Your task to perform on an android device: Go to display settings Image 0: 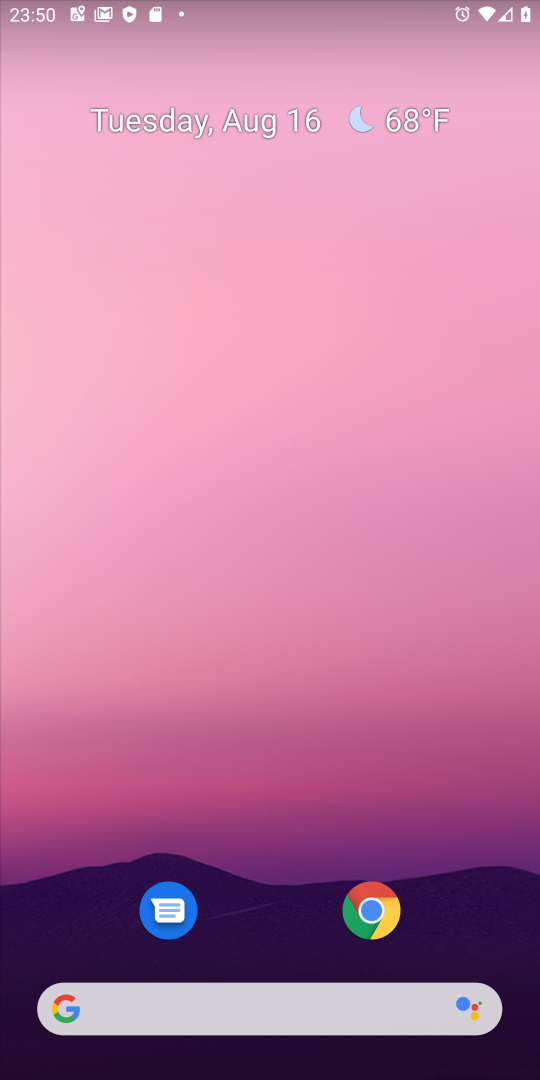
Step 0: drag from (221, 879) to (237, 105)
Your task to perform on an android device: Go to display settings Image 1: 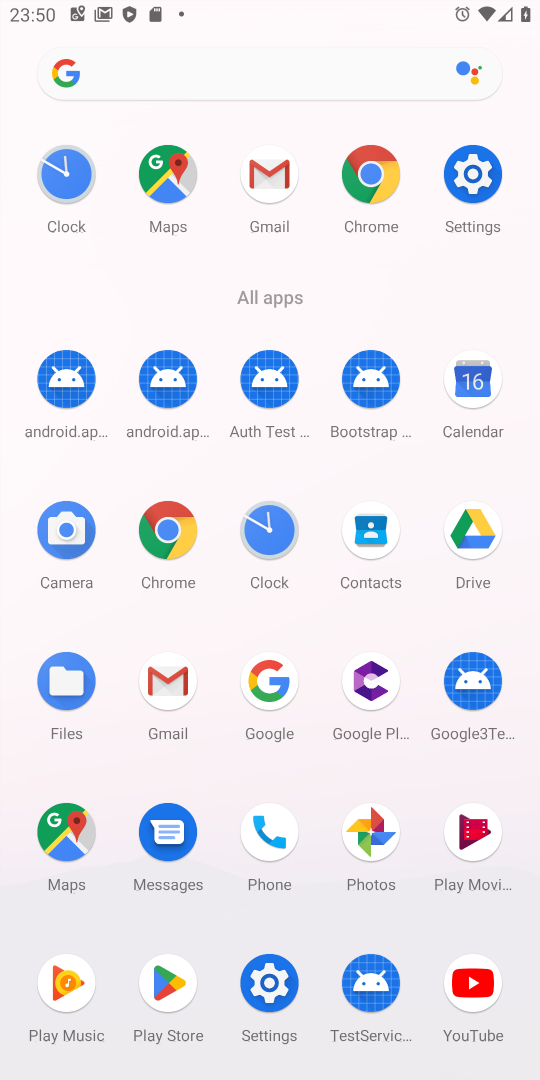
Step 1: click (271, 989)
Your task to perform on an android device: Go to display settings Image 2: 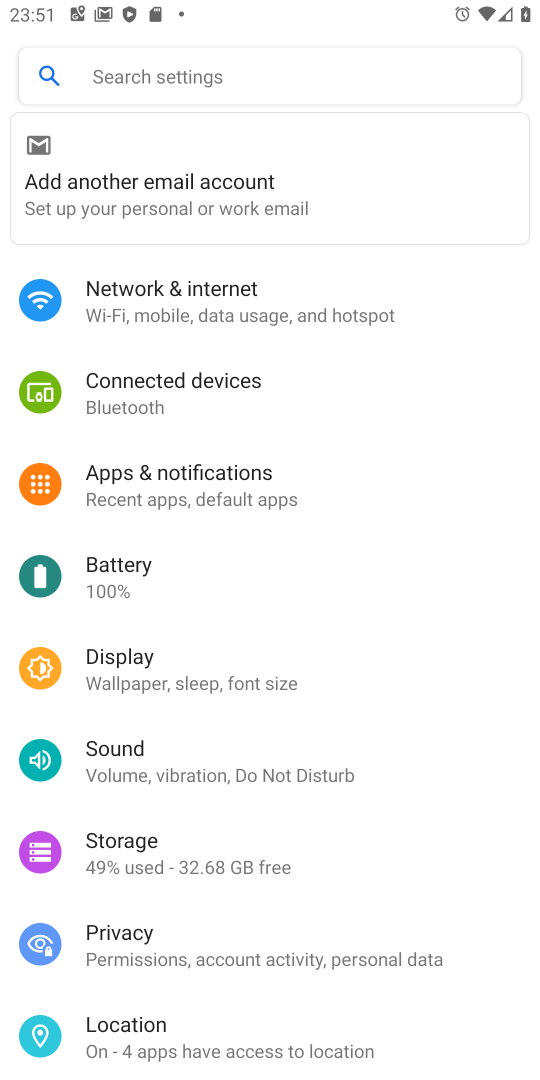
Step 2: click (186, 680)
Your task to perform on an android device: Go to display settings Image 3: 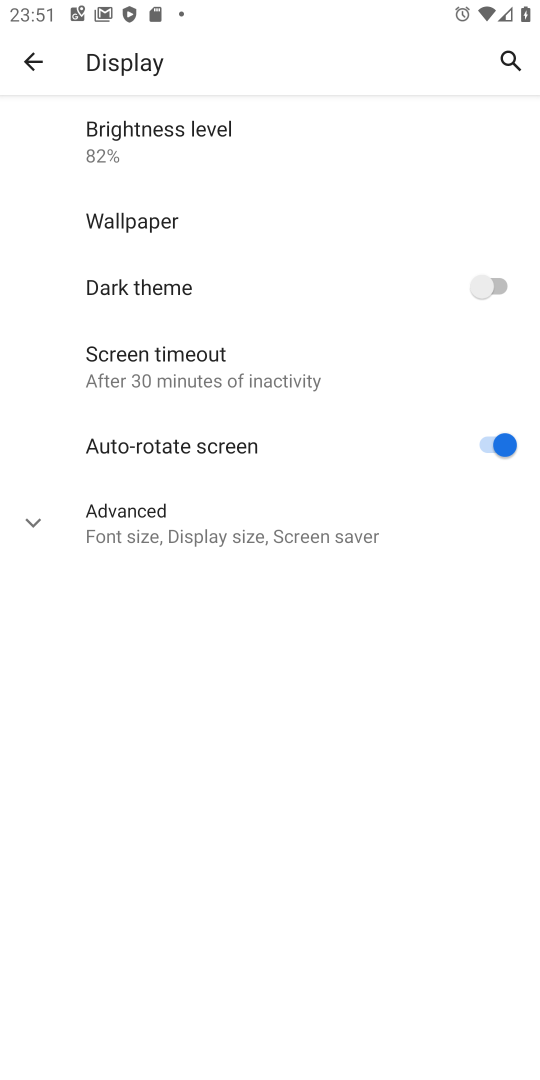
Step 3: task complete